Your task to perform on an android device: What is the recent news? Image 0: 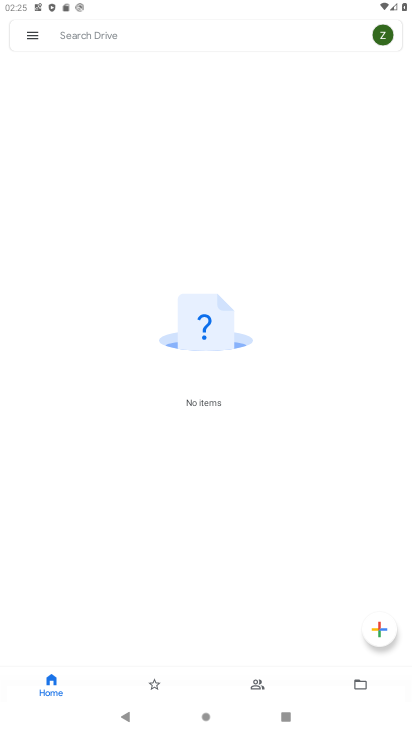
Step 0: press home button
Your task to perform on an android device: What is the recent news? Image 1: 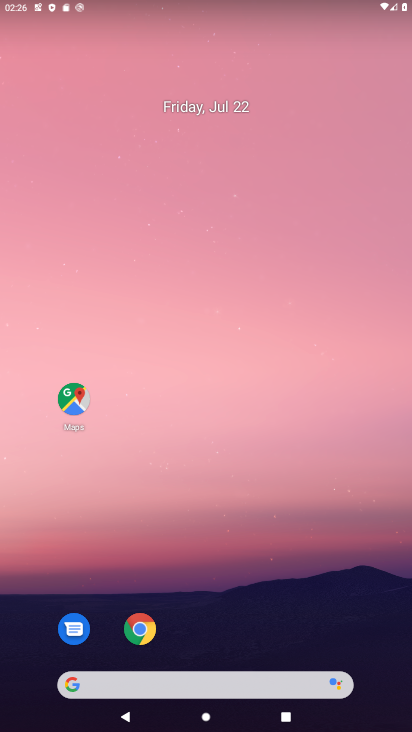
Step 1: click (214, 679)
Your task to perform on an android device: What is the recent news? Image 2: 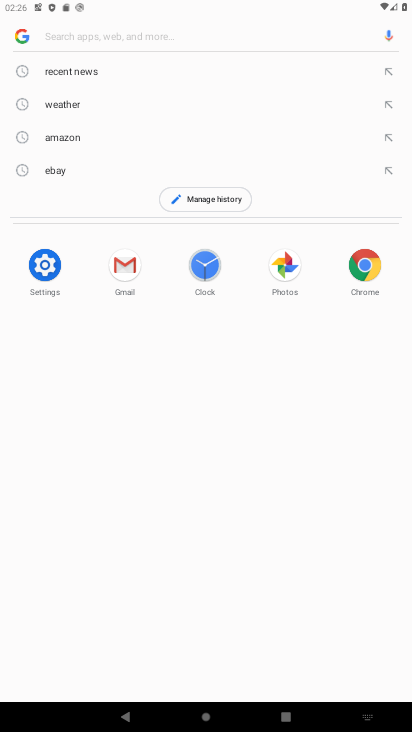
Step 2: click (83, 75)
Your task to perform on an android device: What is the recent news? Image 3: 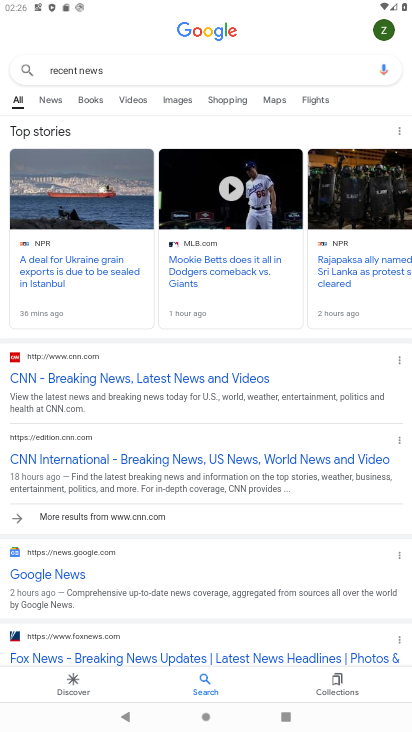
Step 3: task complete